Your task to perform on an android device: Open Google Image 0: 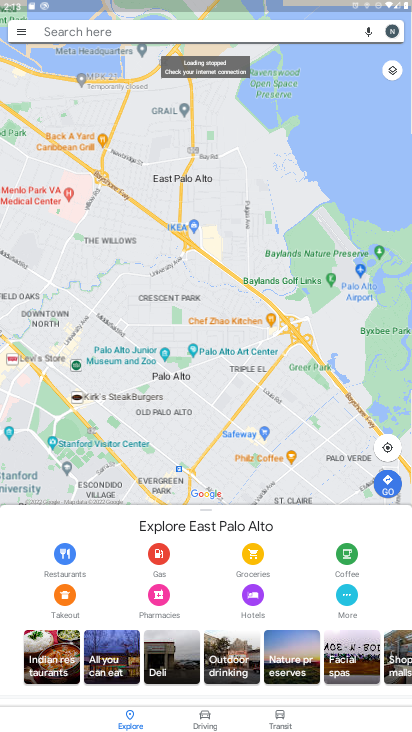
Step 0: press home button
Your task to perform on an android device: Open Google Image 1: 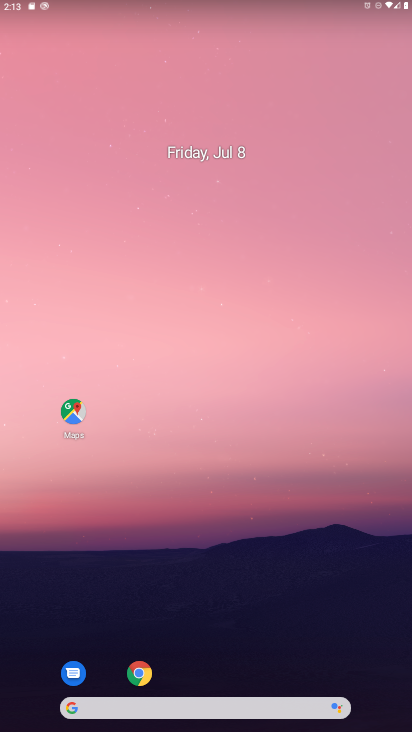
Step 1: drag from (394, 635) to (328, 227)
Your task to perform on an android device: Open Google Image 2: 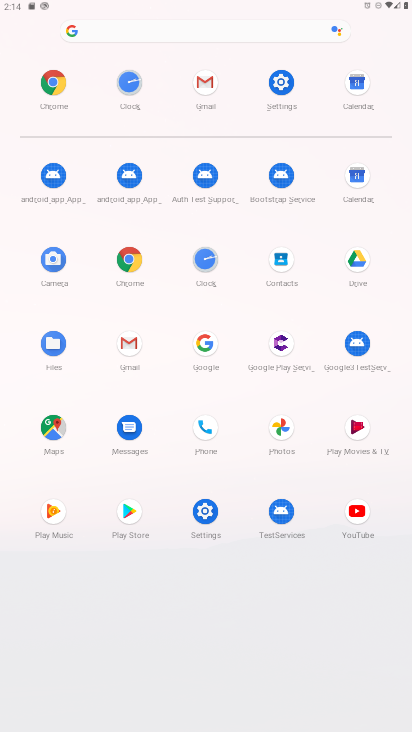
Step 2: click (202, 350)
Your task to perform on an android device: Open Google Image 3: 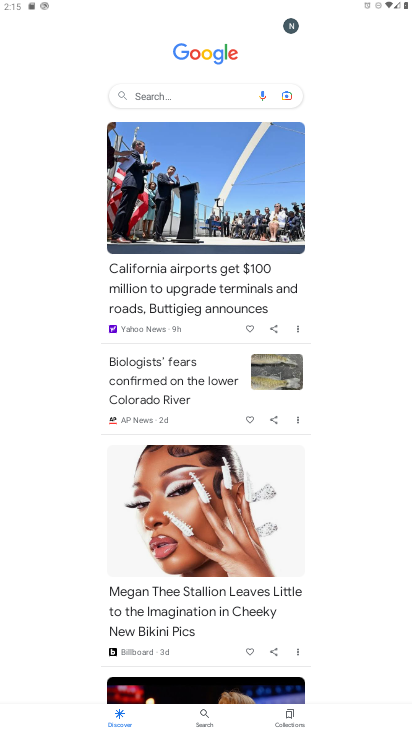
Step 3: task complete